Your task to perform on an android device: check storage Image 0: 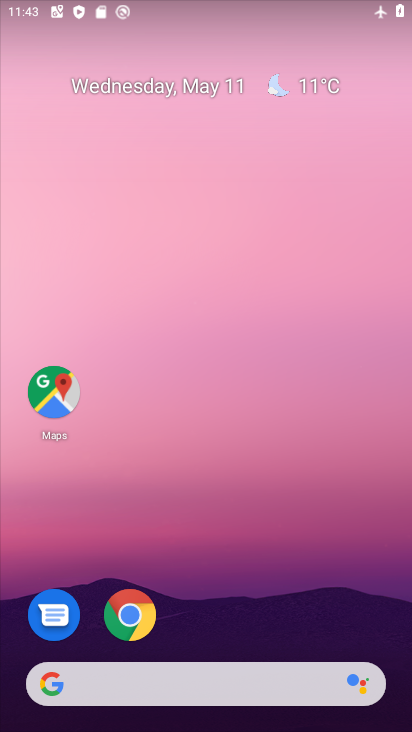
Step 0: drag from (283, 587) to (272, 158)
Your task to perform on an android device: check storage Image 1: 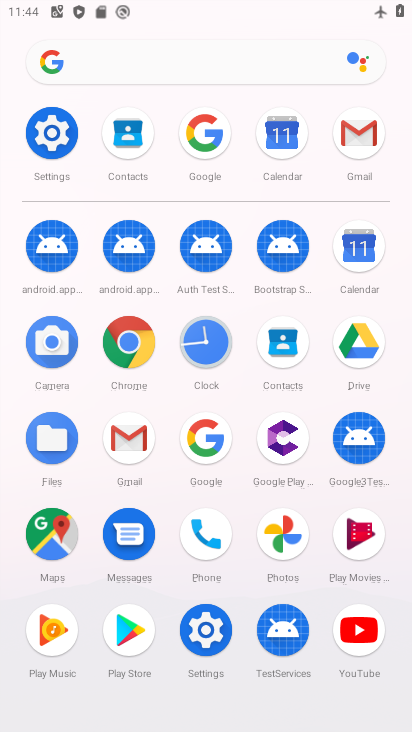
Step 1: click (38, 136)
Your task to perform on an android device: check storage Image 2: 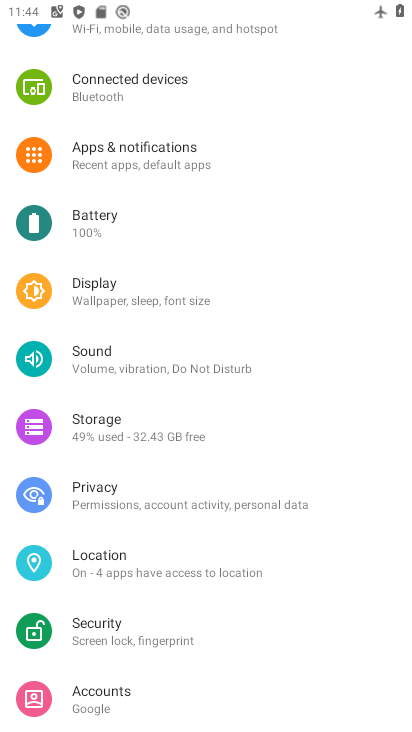
Step 2: drag from (123, 573) to (201, 731)
Your task to perform on an android device: check storage Image 3: 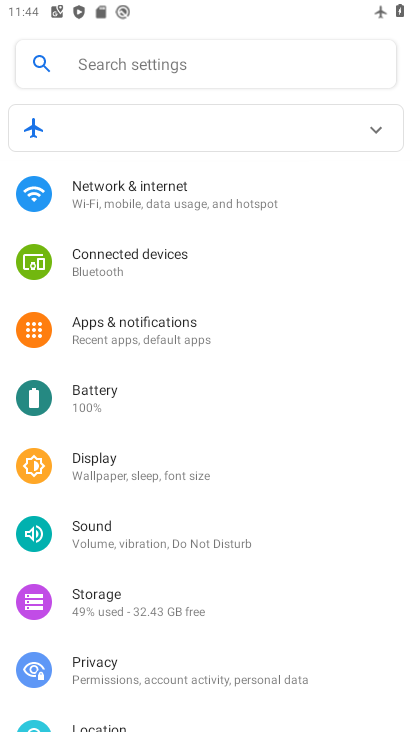
Step 3: drag from (187, 644) to (184, 556)
Your task to perform on an android device: check storage Image 4: 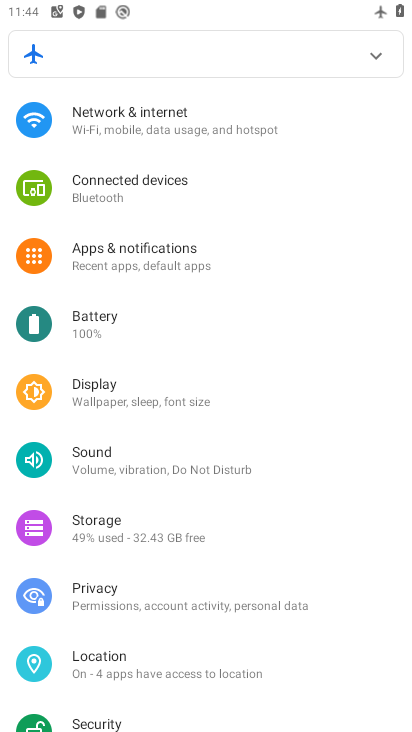
Step 4: click (155, 521)
Your task to perform on an android device: check storage Image 5: 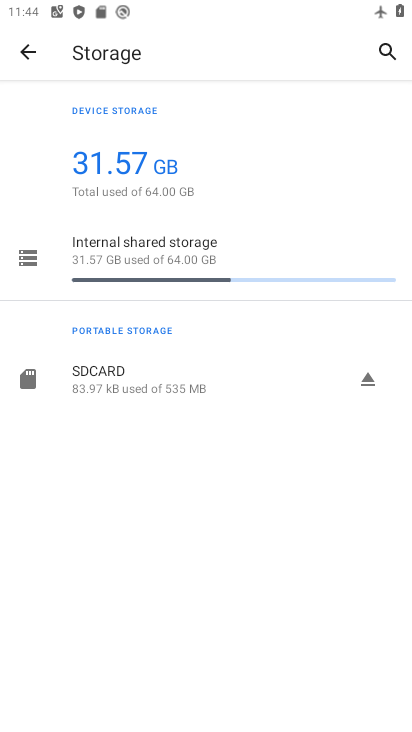
Step 5: task complete